Your task to perform on an android device: change the clock display to digital Image 0: 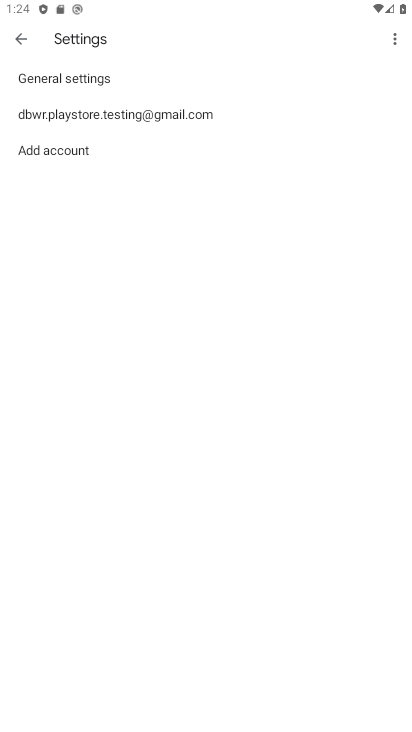
Step 0: press home button
Your task to perform on an android device: change the clock display to digital Image 1: 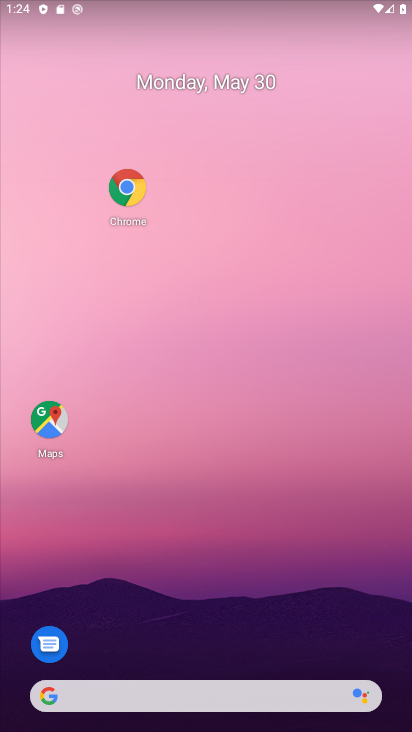
Step 1: drag from (187, 629) to (150, 9)
Your task to perform on an android device: change the clock display to digital Image 2: 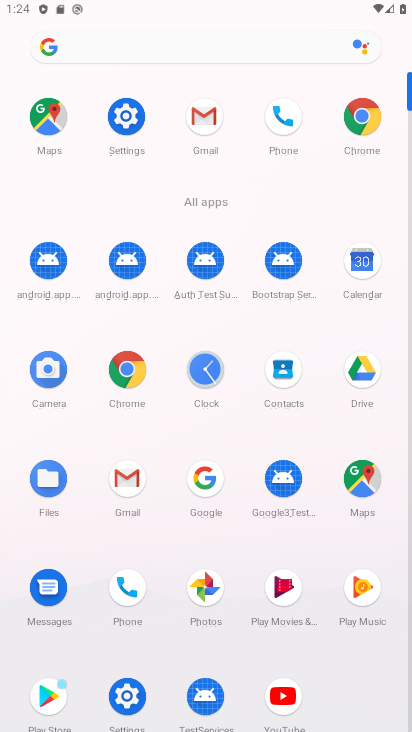
Step 2: click (221, 379)
Your task to perform on an android device: change the clock display to digital Image 3: 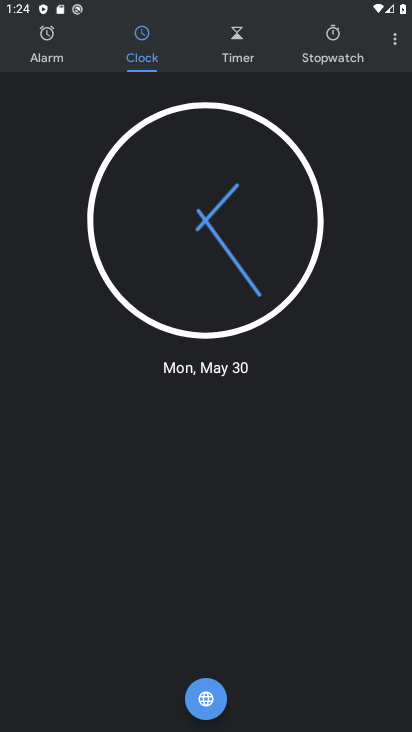
Step 3: click (405, 45)
Your task to perform on an android device: change the clock display to digital Image 4: 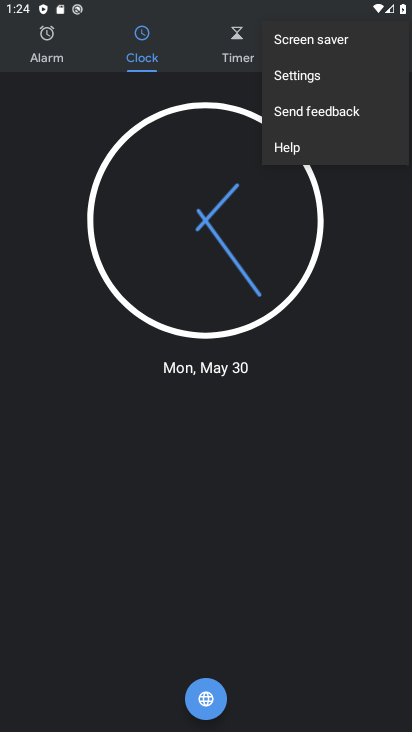
Step 4: click (303, 73)
Your task to perform on an android device: change the clock display to digital Image 5: 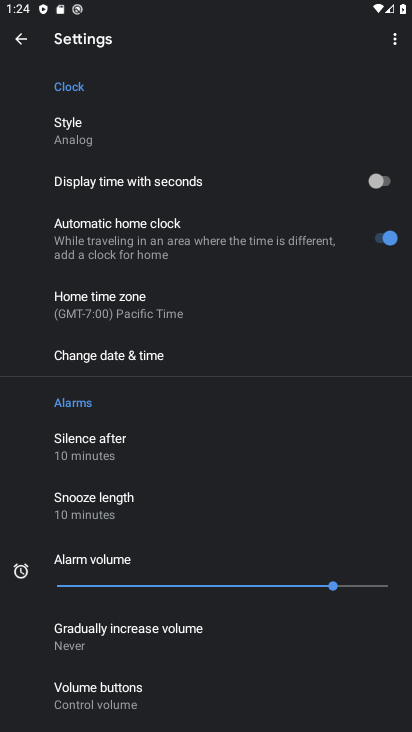
Step 5: click (92, 157)
Your task to perform on an android device: change the clock display to digital Image 6: 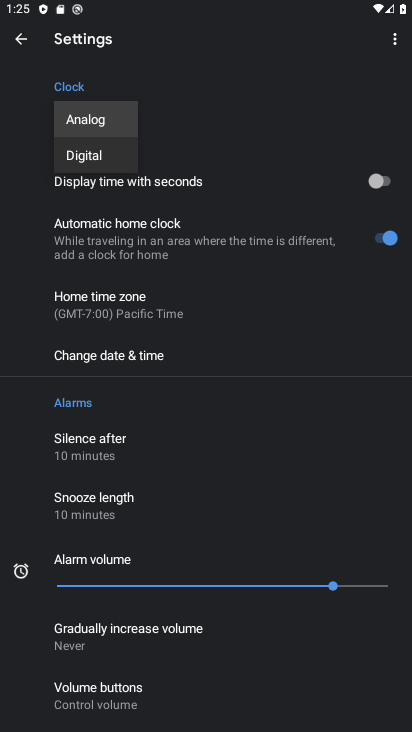
Step 6: click (122, 160)
Your task to perform on an android device: change the clock display to digital Image 7: 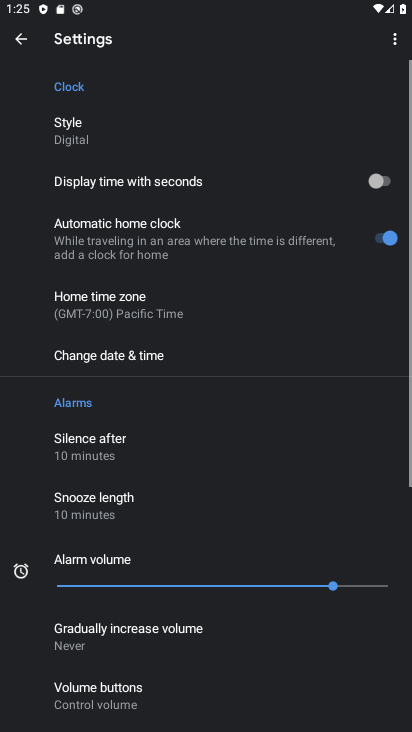
Step 7: task complete